Your task to perform on an android device: Empty the shopping cart on costco. Search for "razer huntsman" on costco, select the first entry, add it to the cart, then select checkout. Image 0: 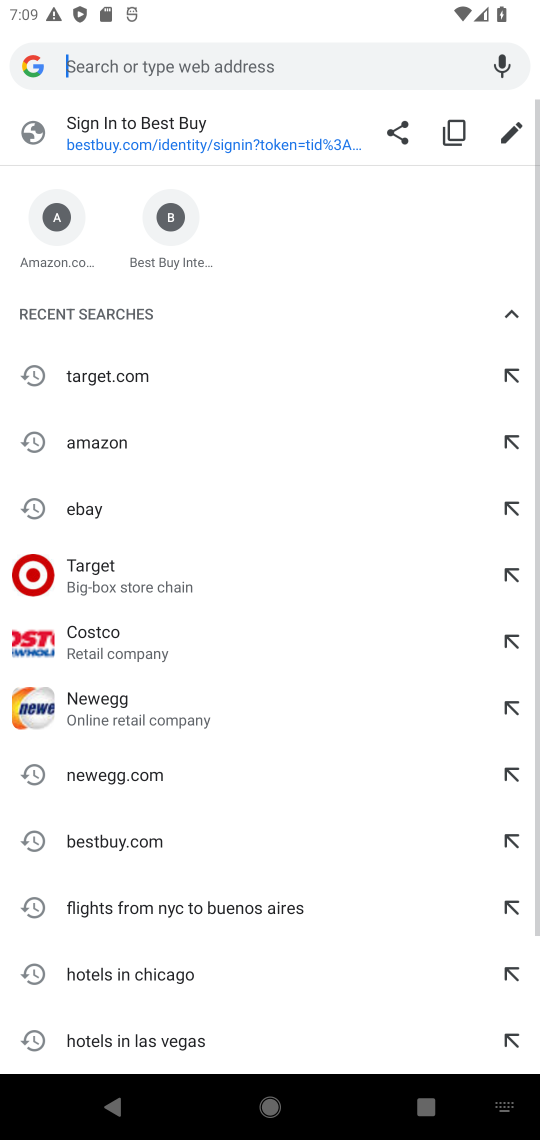
Step 0: click (356, 901)
Your task to perform on an android device: Empty the shopping cart on costco. Search for "razer huntsman" on costco, select the first entry, add it to the cart, then select checkout. Image 1: 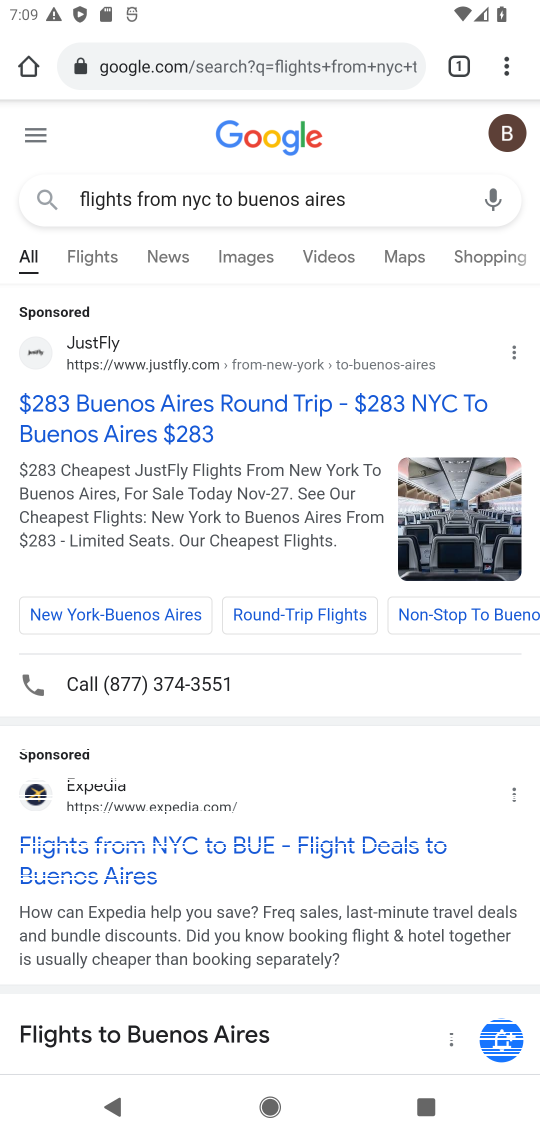
Step 1: click (294, 62)
Your task to perform on an android device: Empty the shopping cart on costco. Search for "razer huntsman" on costco, select the first entry, add it to the cart, then select checkout. Image 2: 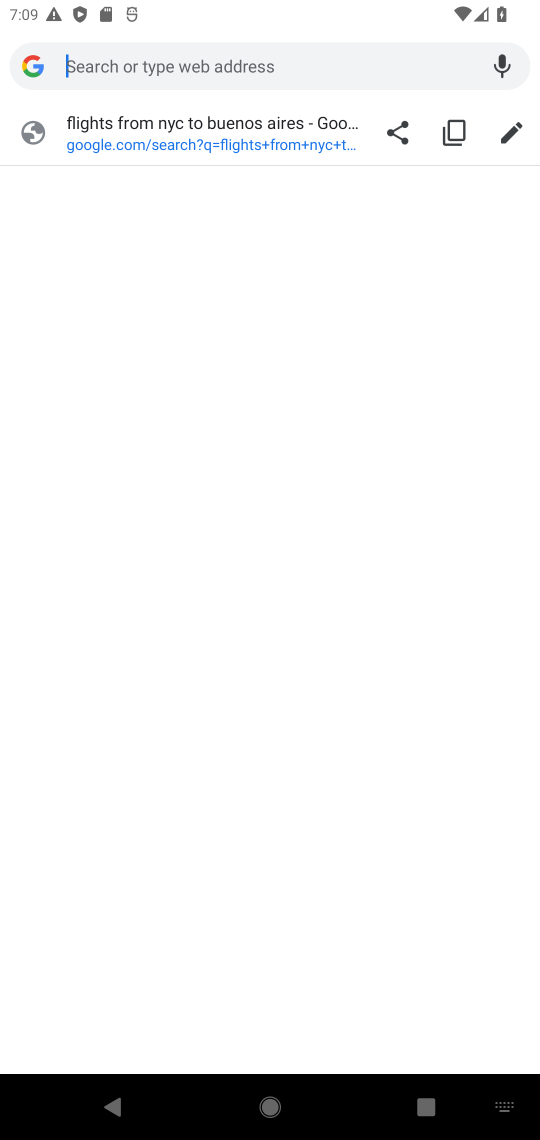
Step 2: type "costco"
Your task to perform on an android device: Empty the shopping cart on costco. Search for "razer huntsman" on costco, select the first entry, add it to the cart, then select checkout. Image 3: 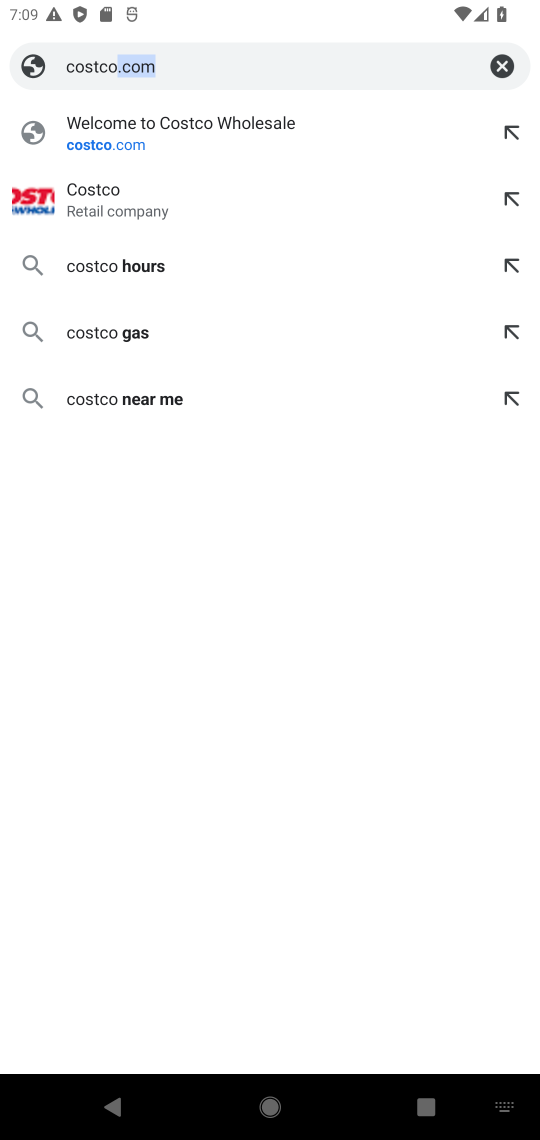
Step 3: click (238, 133)
Your task to perform on an android device: Empty the shopping cart on costco. Search for "razer huntsman" on costco, select the first entry, add it to the cart, then select checkout. Image 4: 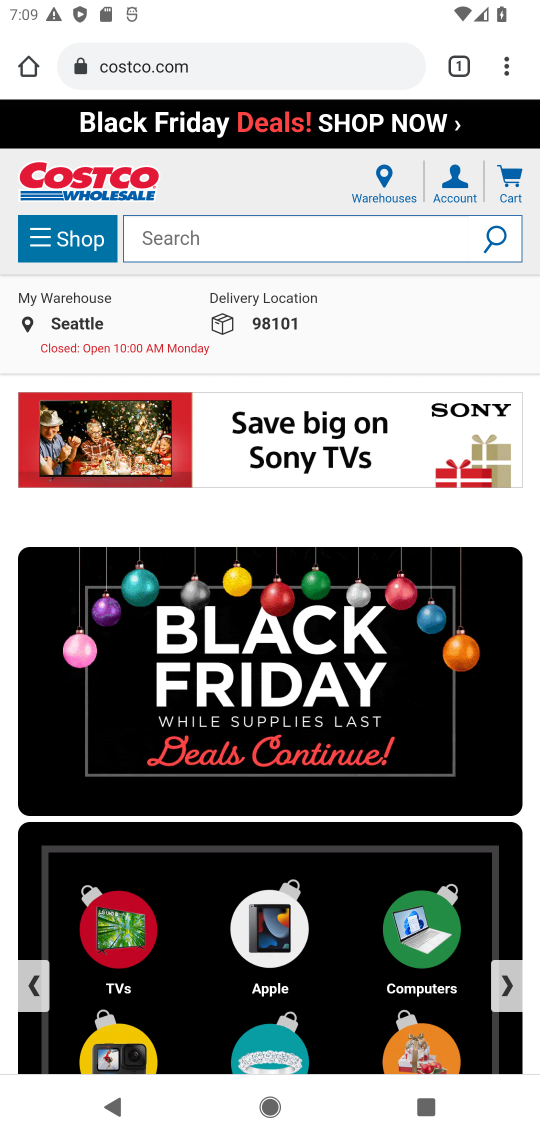
Step 4: click (504, 162)
Your task to perform on an android device: Empty the shopping cart on costco. Search for "razer huntsman" on costco, select the first entry, add it to the cart, then select checkout. Image 5: 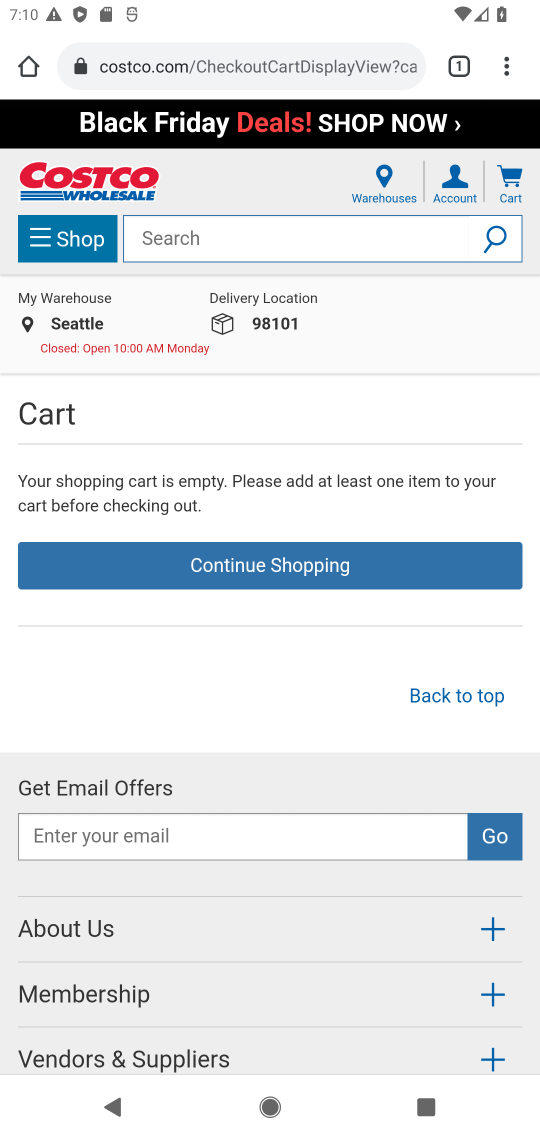
Step 5: click (297, 230)
Your task to perform on an android device: Empty the shopping cart on costco. Search for "razer huntsman" on costco, select the first entry, add it to the cart, then select checkout. Image 6: 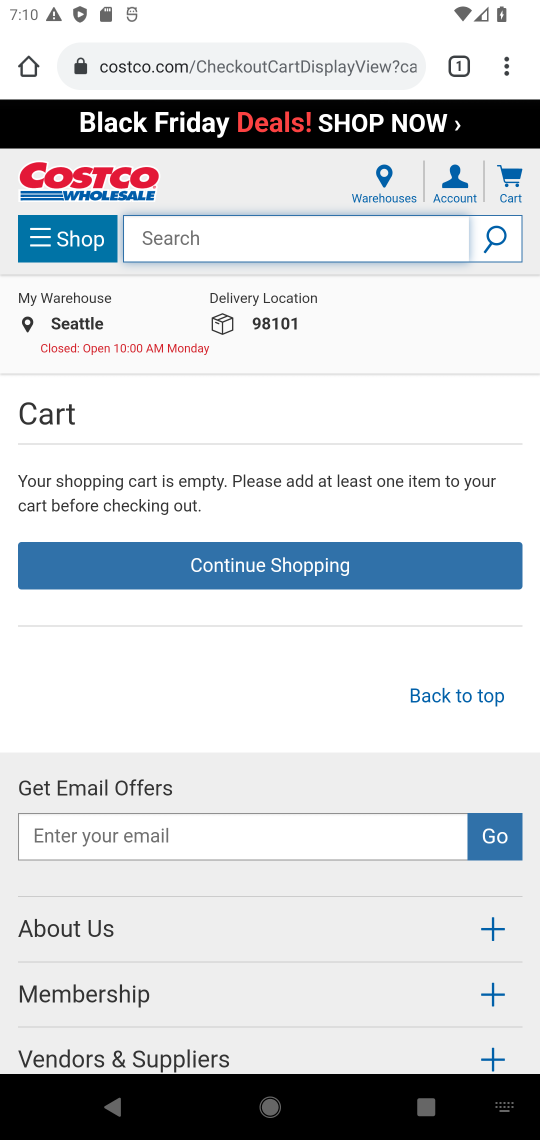
Step 6: type "razer huntsman"
Your task to perform on an android device: Empty the shopping cart on costco. Search for "razer huntsman" on costco, select the first entry, add it to the cart, then select checkout. Image 7: 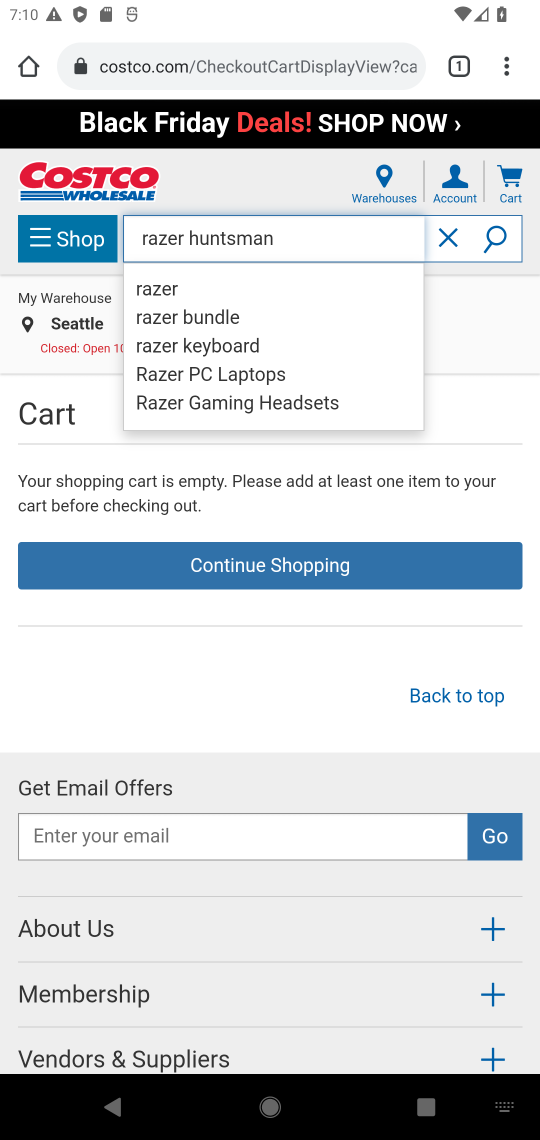
Step 7: click (492, 237)
Your task to perform on an android device: Empty the shopping cart on costco. Search for "razer huntsman" on costco, select the first entry, add it to the cart, then select checkout. Image 8: 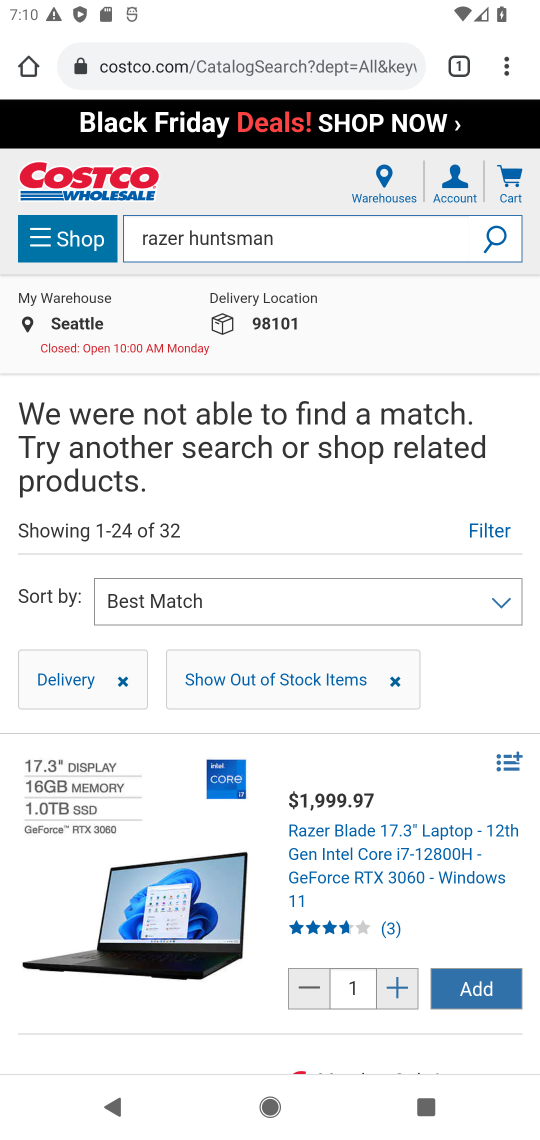
Step 8: click (479, 982)
Your task to perform on an android device: Empty the shopping cart on costco. Search for "razer huntsman" on costco, select the first entry, add it to the cart, then select checkout. Image 9: 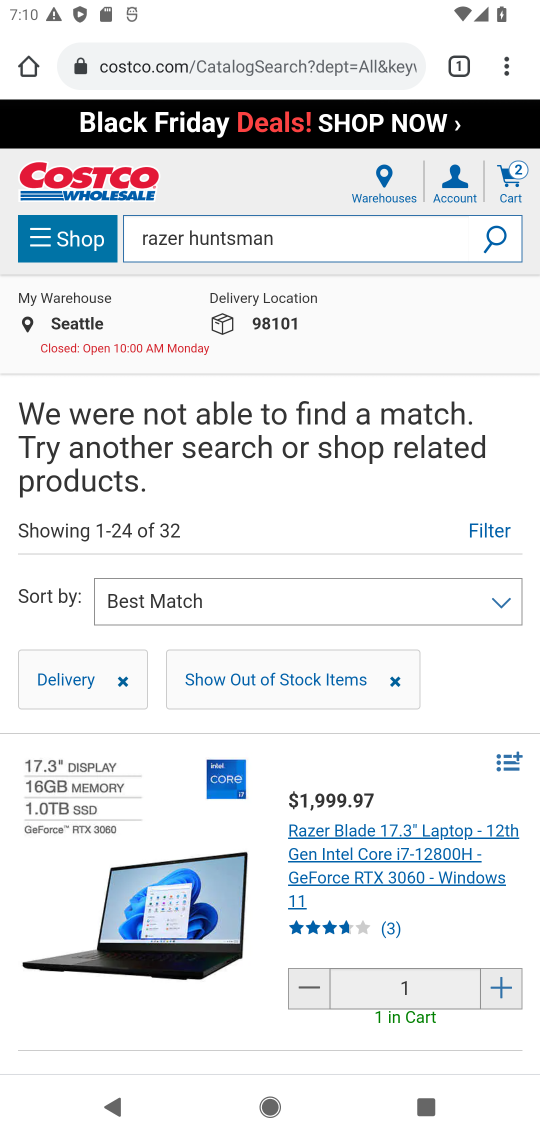
Step 9: click (510, 166)
Your task to perform on an android device: Empty the shopping cart on costco. Search for "razer huntsman" on costco, select the first entry, add it to the cart, then select checkout. Image 10: 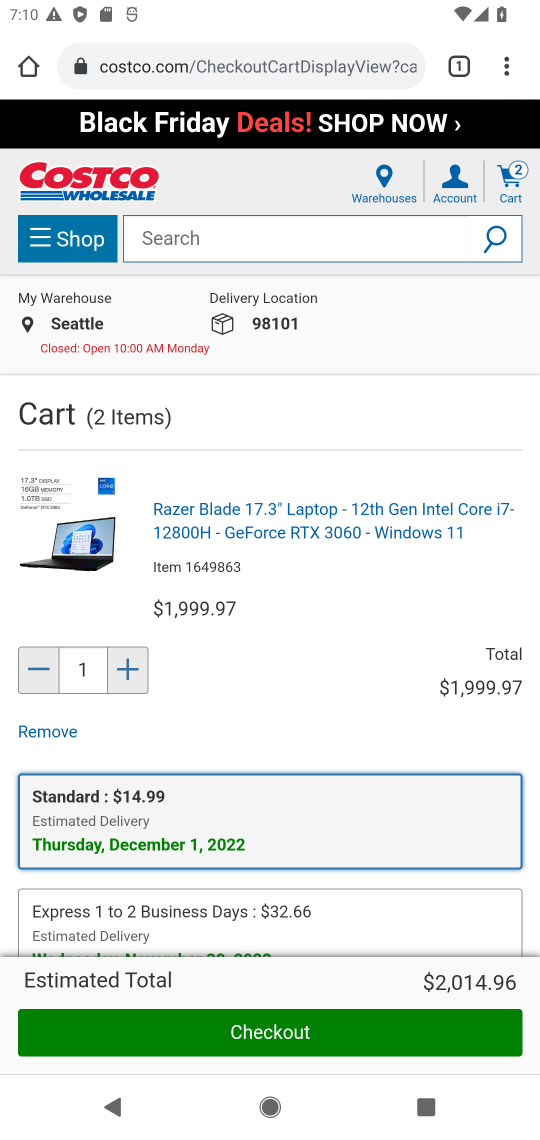
Step 10: click (287, 1029)
Your task to perform on an android device: Empty the shopping cart on costco. Search for "razer huntsman" on costco, select the first entry, add it to the cart, then select checkout. Image 11: 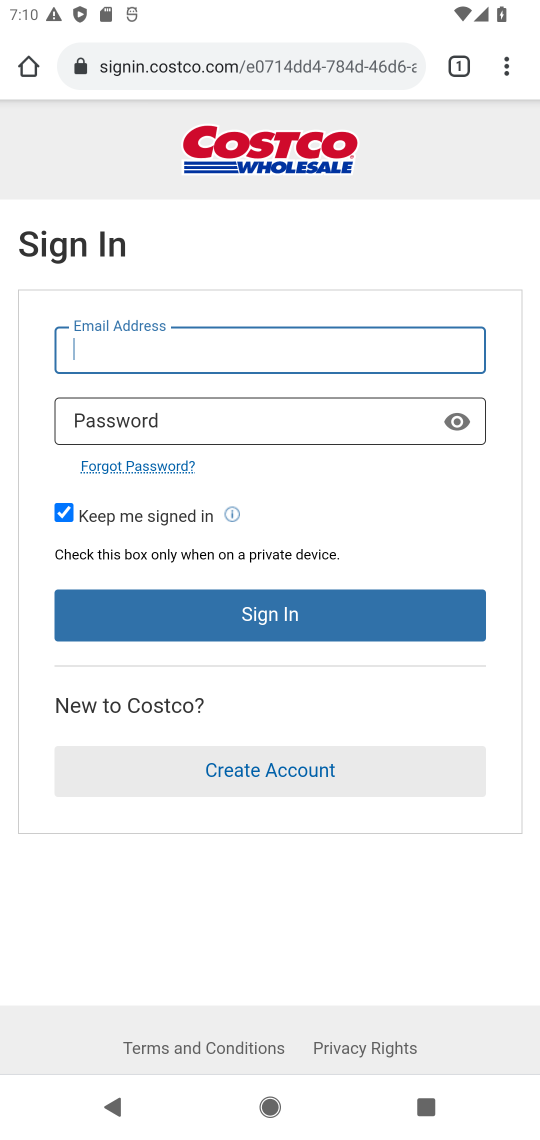
Step 11: task complete